Your task to perform on an android device: empty trash in the gmail app Image 0: 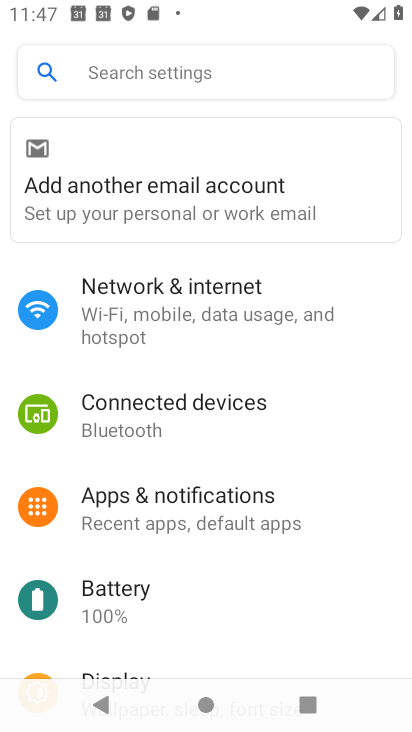
Step 0: press back button
Your task to perform on an android device: empty trash in the gmail app Image 1: 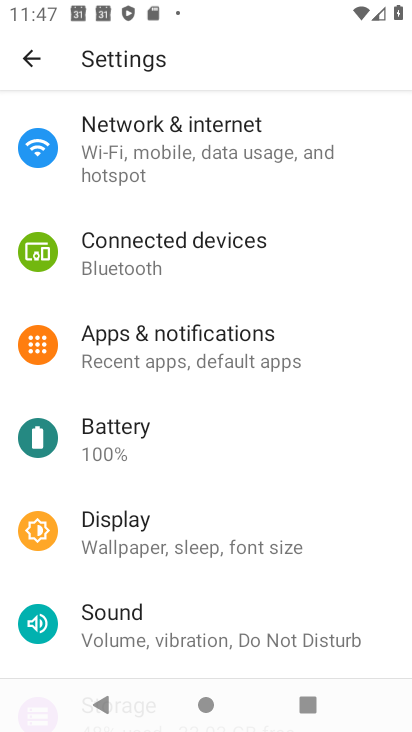
Step 1: drag from (146, 372) to (96, 182)
Your task to perform on an android device: empty trash in the gmail app Image 2: 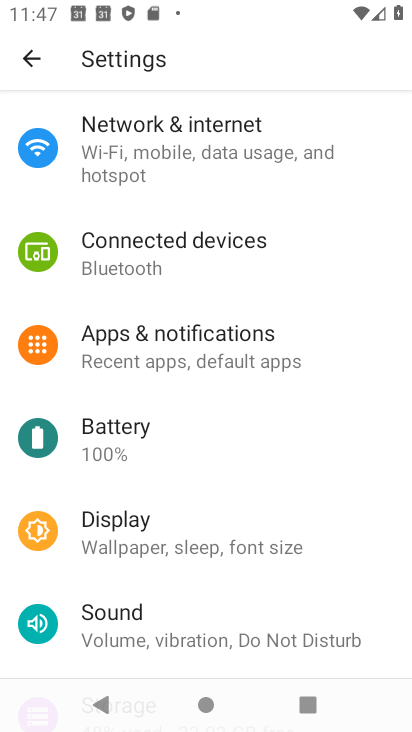
Step 2: click (110, 201)
Your task to perform on an android device: empty trash in the gmail app Image 3: 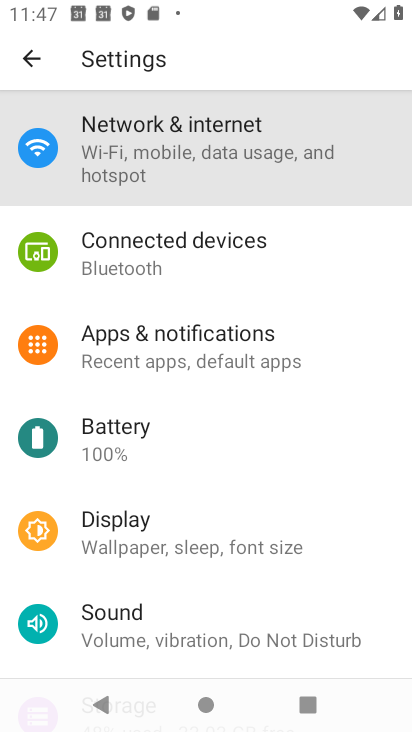
Step 3: click (175, 263)
Your task to perform on an android device: empty trash in the gmail app Image 4: 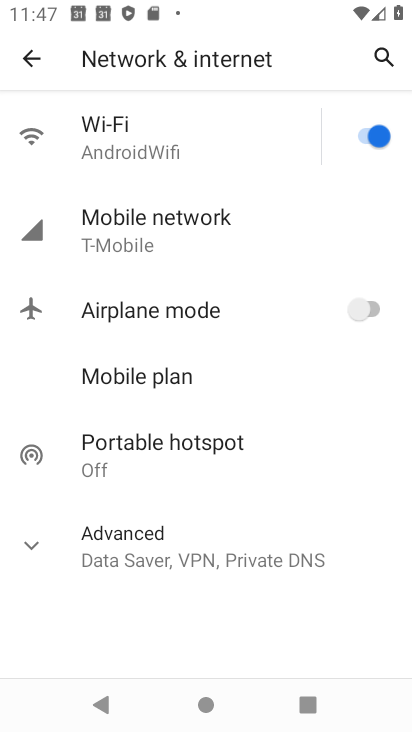
Step 4: click (30, 54)
Your task to perform on an android device: empty trash in the gmail app Image 5: 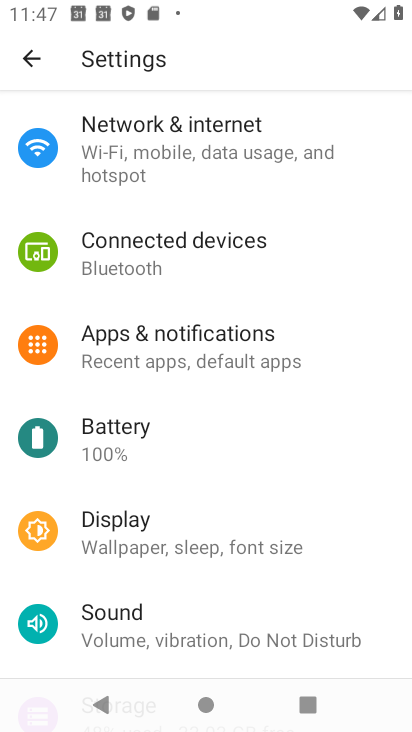
Step 5: press home button
Your task to perform on an android device: empty trash in the gmail app Image 6: 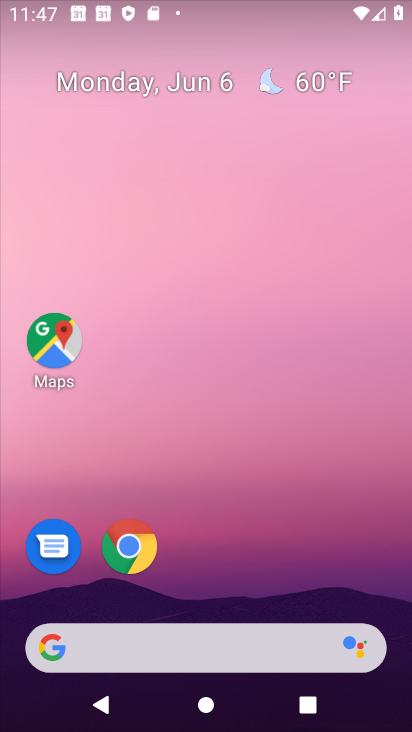
Step 6: drag from (238, 611) to (111, 10)
Your task to perform on an android device: empty trash in the gmail app Image 7: 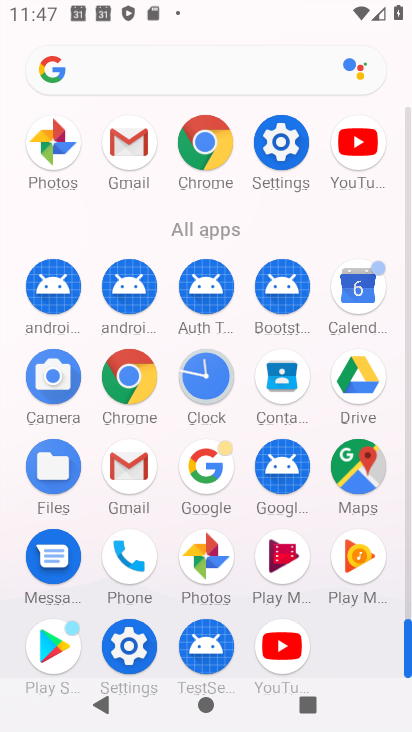
Step 7: click (117, 463)
Your task to perform on an android device: empty trash in the gmail app Image 8: 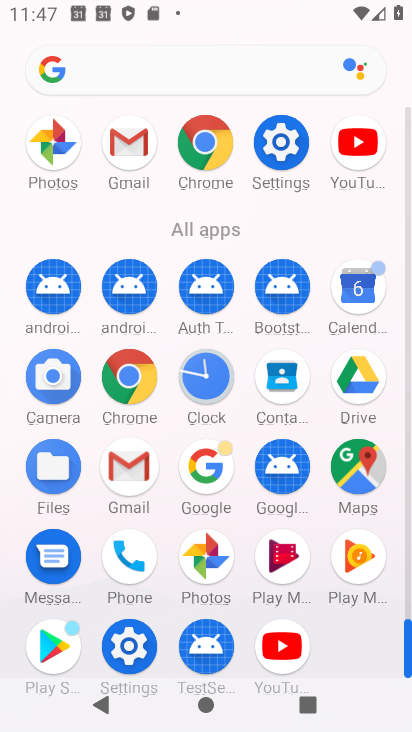
Step 8: click (118, 463)
Your task to perform on an android device: empty trash in the gmail app Image 9: 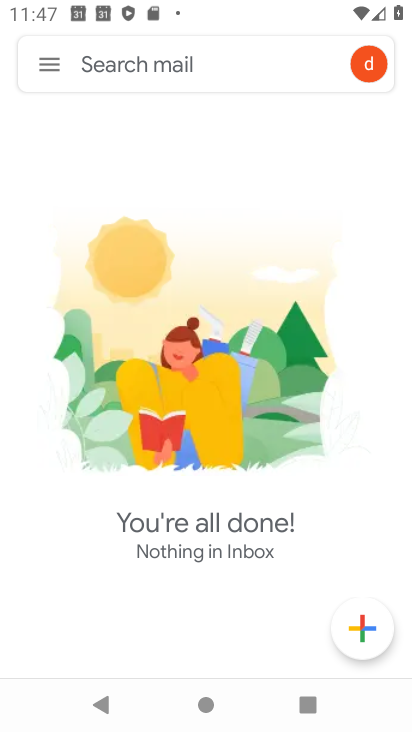
Step 9: click (46, 64)
Your task to perform on an android device: empty trash in the gmail app Image 10: 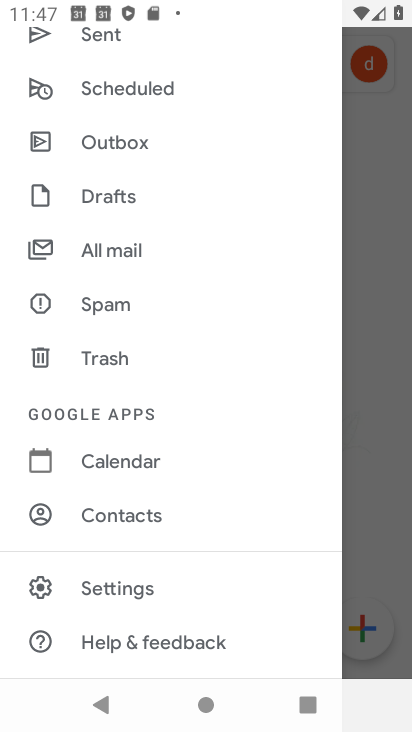
Step 10: click (97, 358)
Your task to perform on an android device: empty trash in the gmail app Image 11: 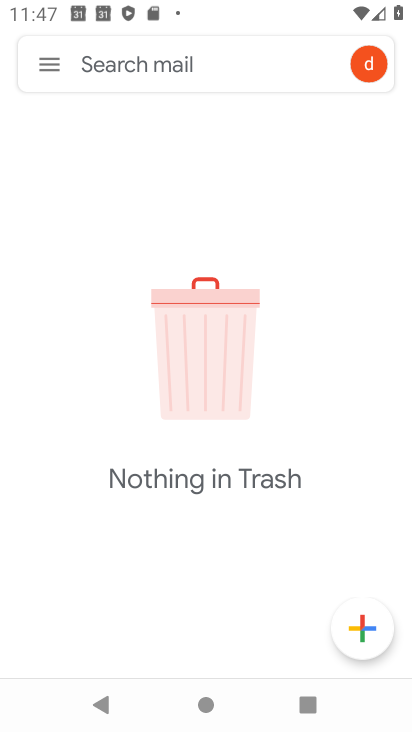
Step 11: click (44, 68)
Your task to perform on an android device: empty trash in the gmail app Image 12: 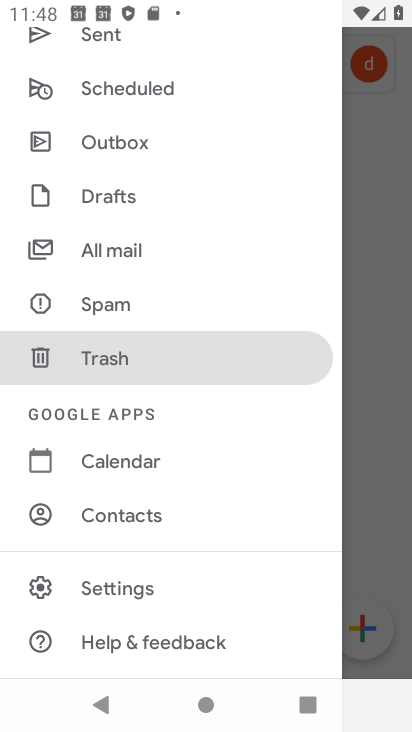
Step 12: click (115, 354)
Your task to perform on an android device: empty trash in the gmail app Image 13: 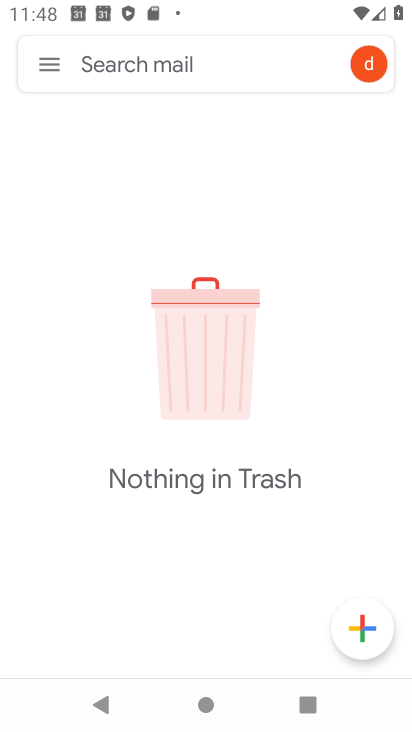
Step 13: task complete